Your task to perform on an android device: turn off airplane mode Image 0: 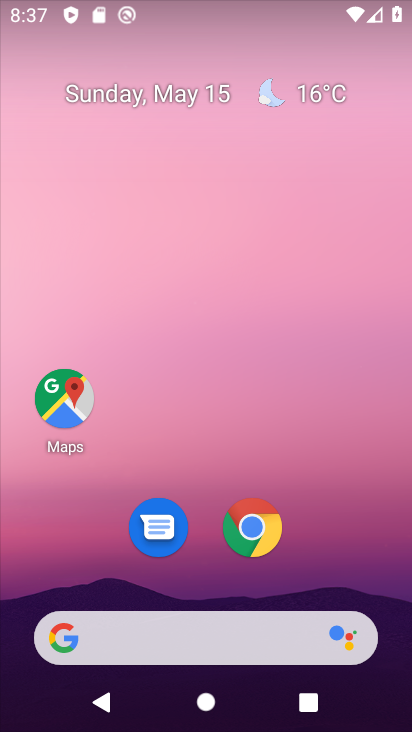
Step 0: drag from (377, 581) to (324, 2)
Your task to perform on an android device: turn off airplane mode Image 1: 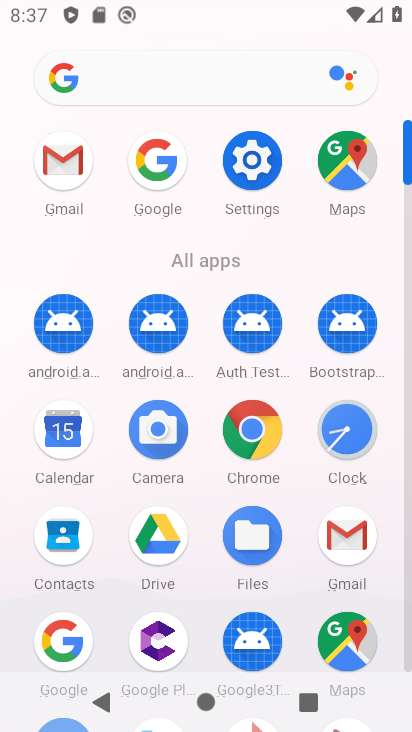
Step 1: click (246, 178)
Your task to perform on an android device: turn off airplane mode Image 2: 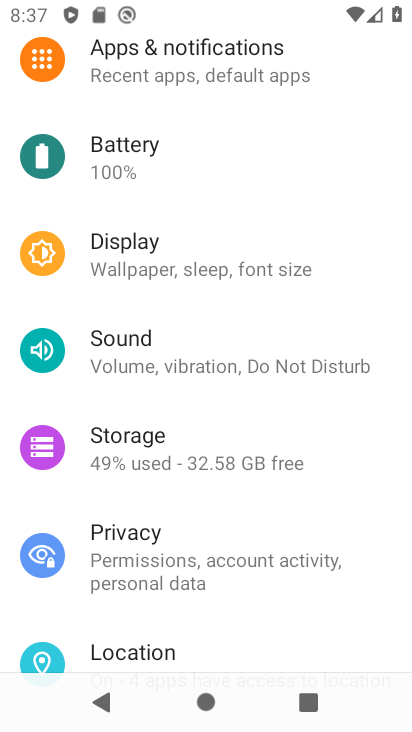
Step 2: drag from (396, 205) to (395, 601)
Your task to perform on an android device: turn off airplane mode Image 3: 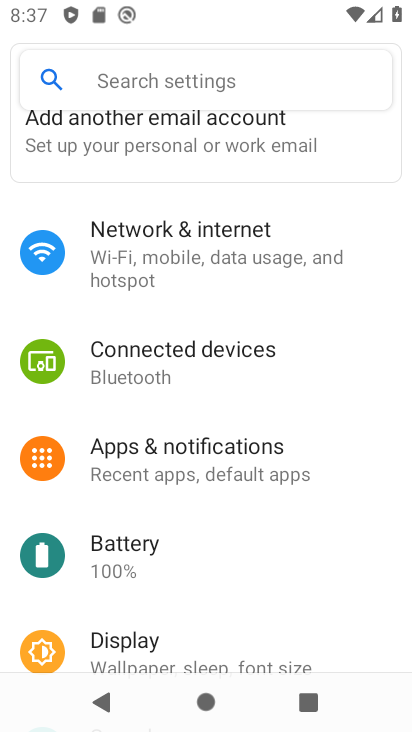
Step 3: click (170, 272)
Your task to perform on an android device: turn off airplane mode Image 4: 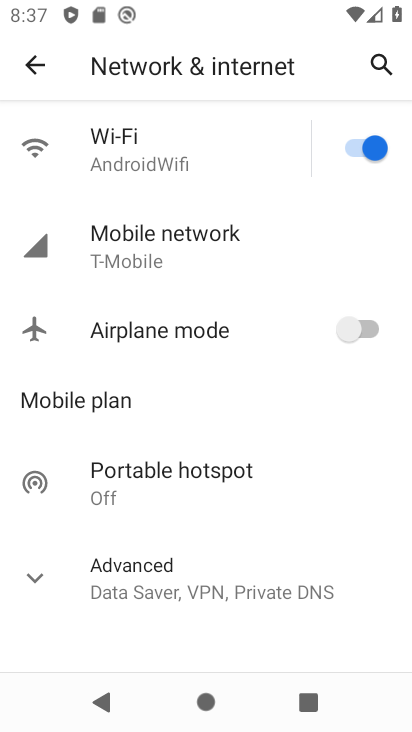
Step 4: task complete